Your task to perform on an android device: toggle javascript in the chrome app Image 0: 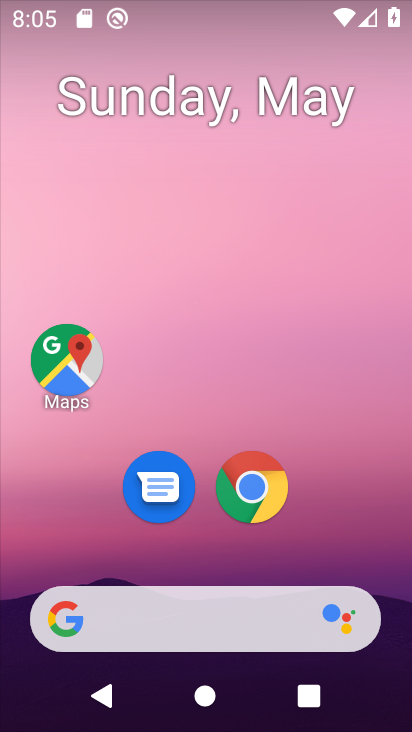
Step 0: click (252, 481)
Your task to perform on an android device: toggle javascript in the chrome app Image 1: 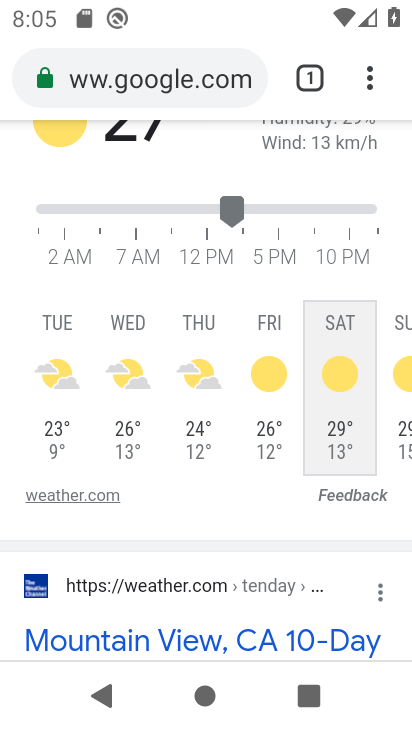
Step 1: click (369, 83)
Your task to perform on an android device: toggle javascript in the chrome app Image 2: 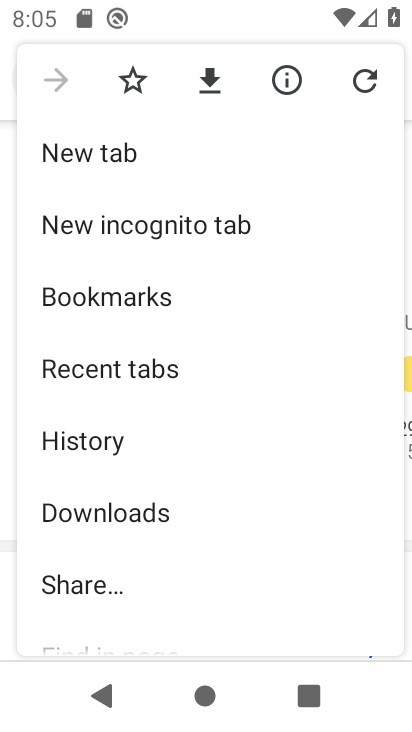
Step 2: drag from (144, 542) to (153, 447)
Your task to perform on an android device: toggle javascript in the chrome app Image 3: 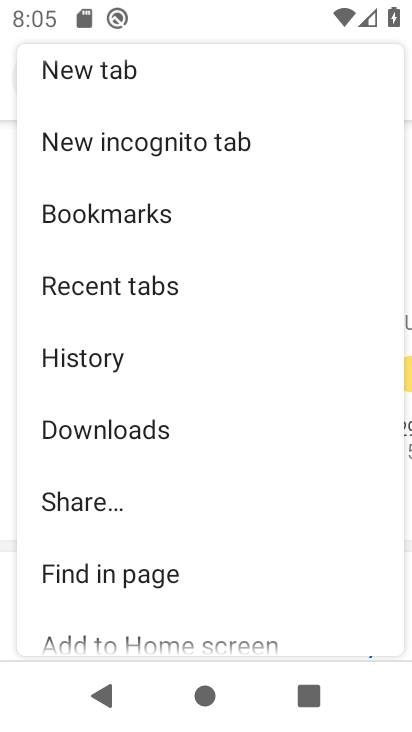
Step 3: drag from (112, 534) to (160, 410)
Your task to perform on an android device: toggle javascript in the chrome app Image 4: 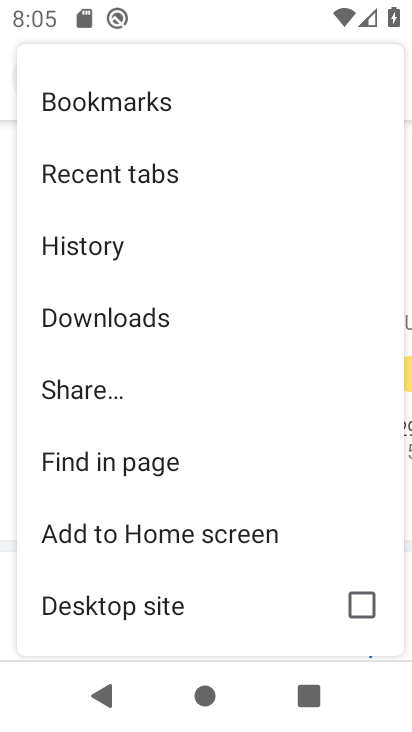
Step 4: drag from (136, 494) to (189, 387)
Your task to perform on an android device: toggle javascript in the chrome app Image 5: 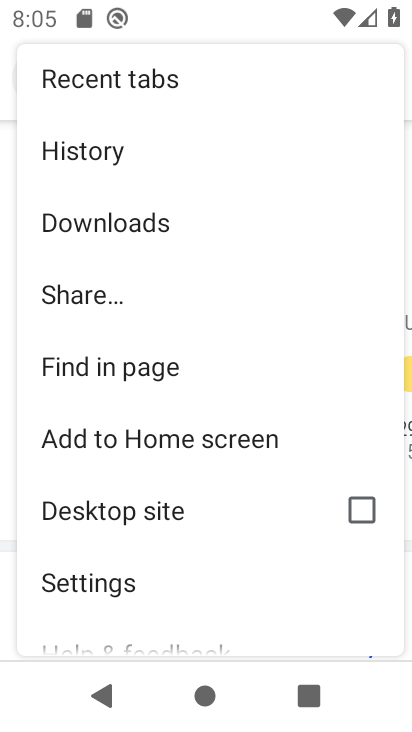
Step 5: click (87, 586)
Your task to perform on an android device: toggle javascript in the chrome app Image 6: 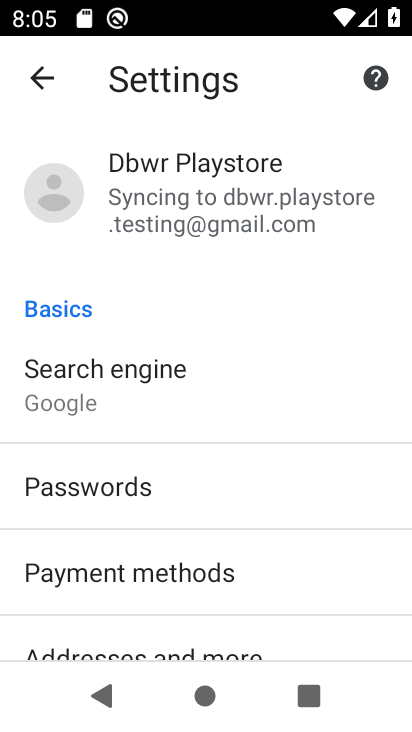
Step 6: drag from (137, 548) to (195, 447)
Your task to perform on an android device: toggle javascript in the chrome app Image 7: 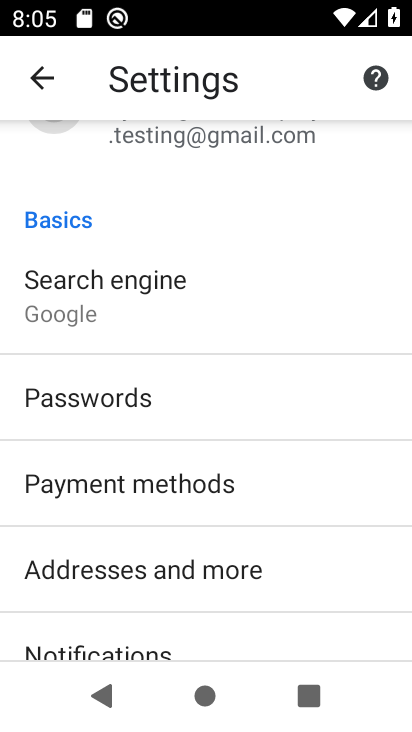
Step 7: drag from (146, 599) to (191, 483)
Your task to perform on an android device: toggle javascript in the chrome app Image 8: 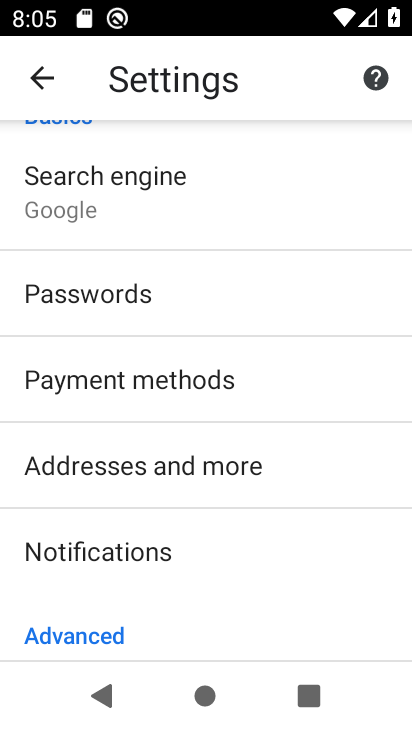
Step 8: drag from (133, 594) to (211, 465)
Your task to perform on an android device: toggle javascript in the chrome app Image 9: 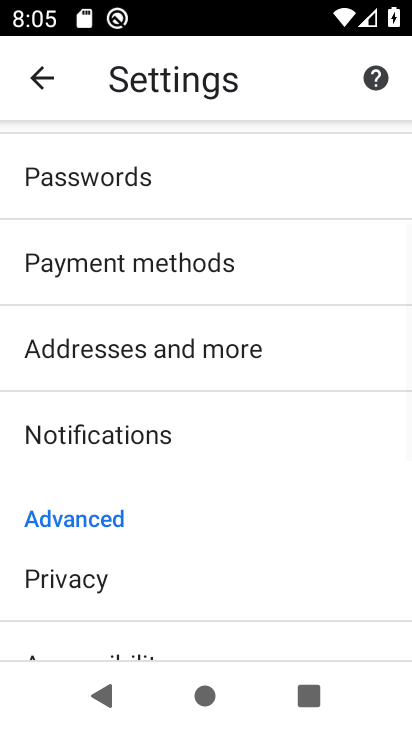
Step 9: drag from (137, 613) to (209, 509)
Your task to perform on an android device: toggle javascript in the chrome app Image 10: 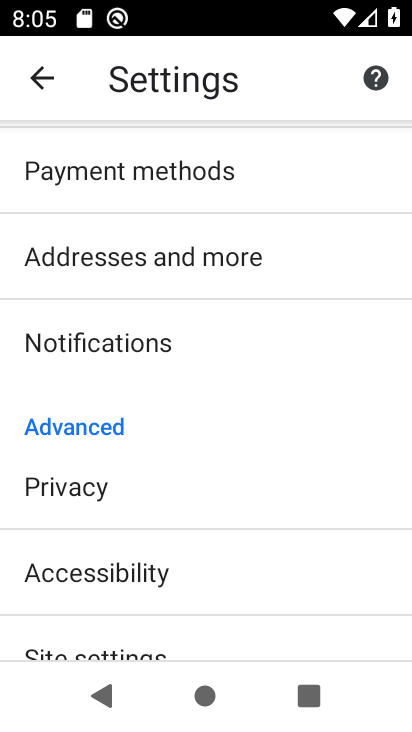
Step 10: drag from (189, 599) to (278, 479)
Your task to perform on an android device: toggle javascript in the chrome app Image 11: 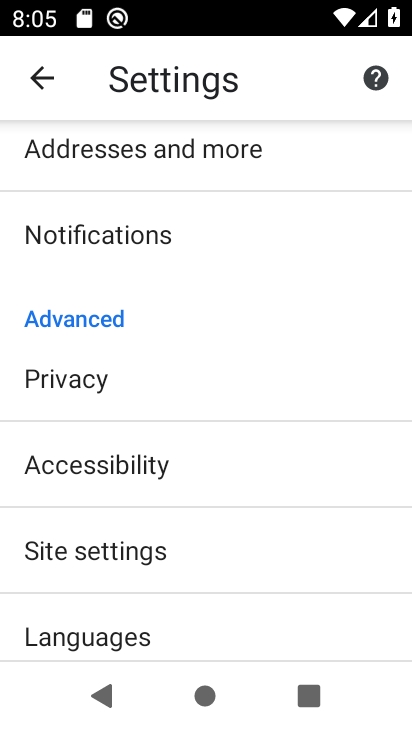
Step 11: drag from (225, 551) to (301, 464)
Your task to perform on an android device: toggle javascript in the chrome app Image 12: 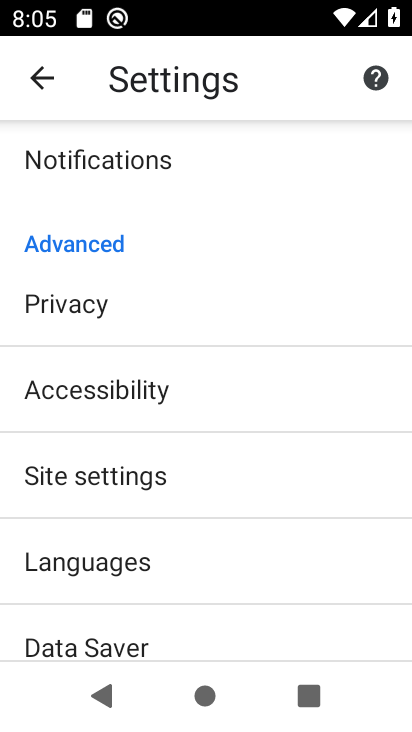
Step 12: click (120, 473)
Your task to perform on an android device: toggle javascript in the chrome app Image 13: 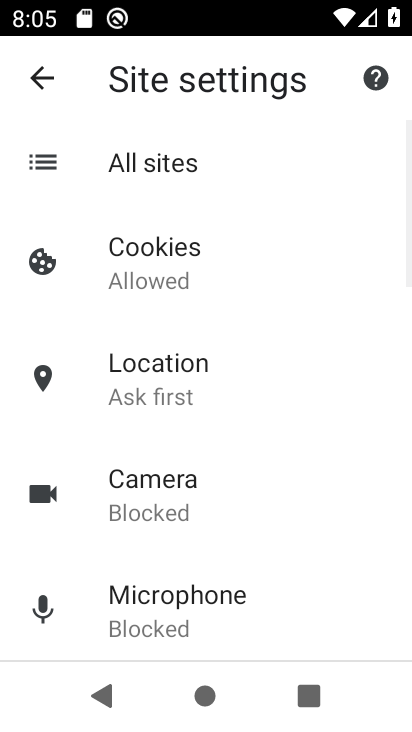
Step 13: drag from (135, 572) to (167, 464)
Your task to perform on an android device: toggle javascript in the chrome app Image 14: 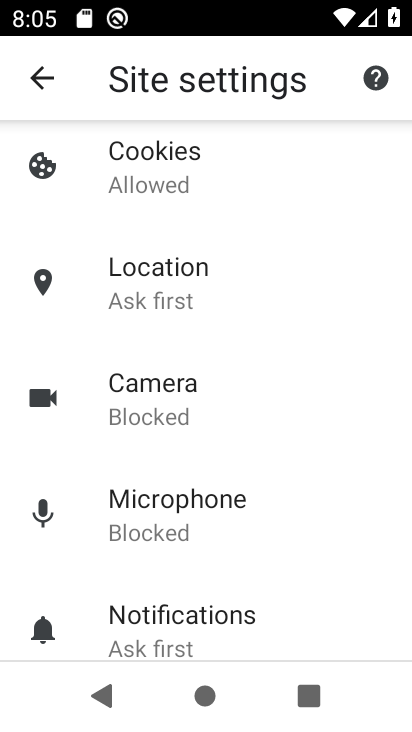
Step 14: drag from (155, 554) to (204, 445)
Your task to perform on an android device: toggle javascript in the chrome app Image 15: 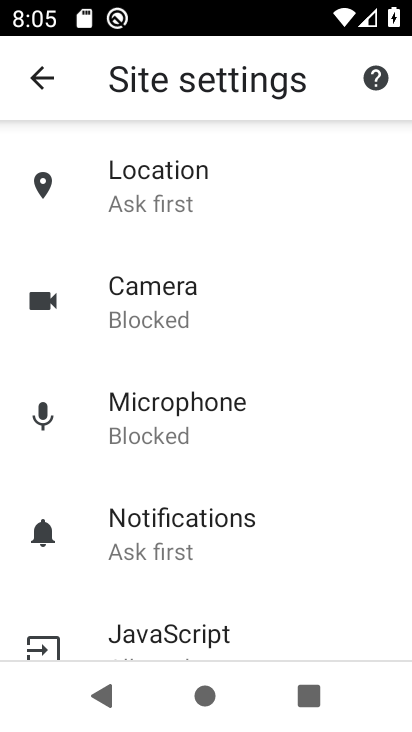
Step 15: drag from (156, 584) to (226, 469)
Your task to perform on an android device: toggle javascript in the chrome app Image 16: 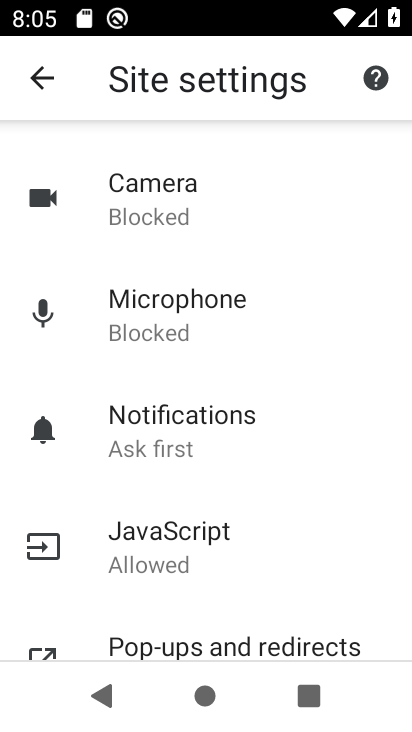
Step 16: click (168, 532)
Your task to perform on an android device: toggle javascript in the chrome app Image 17: 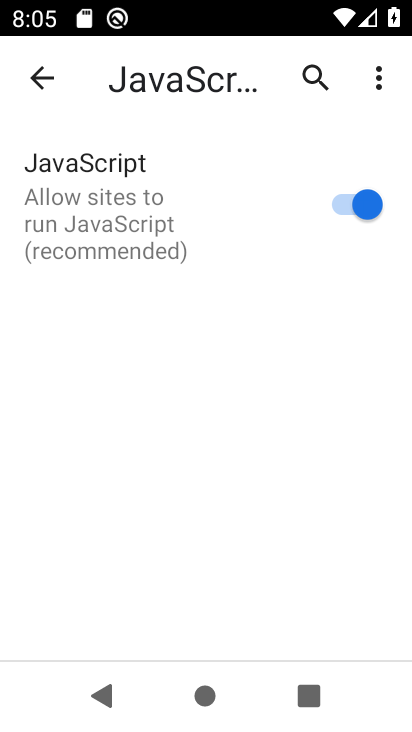
Step 17: click (363, 201)
Your task to perform on an android device: toggle javascript in the chrome app Image 18: 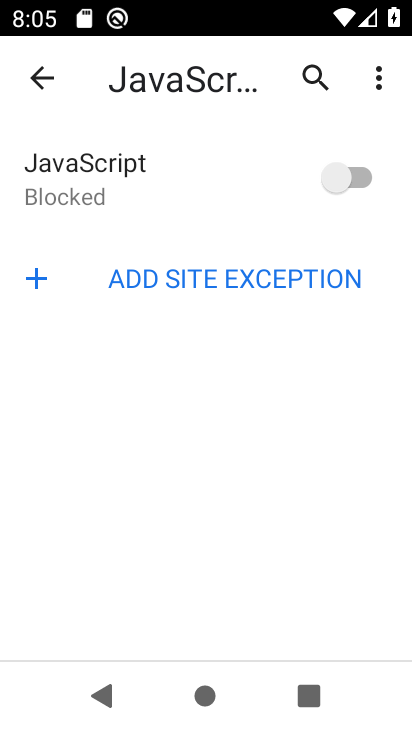
Step 18: task complete